Your task to perform on an android device: visit the assistant section in the google photos Image 0: 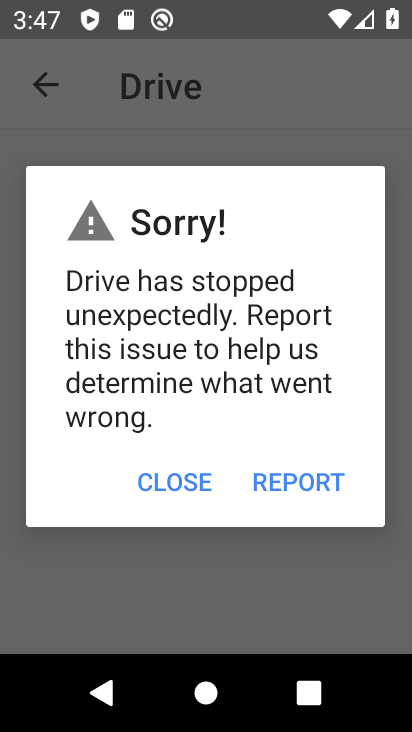
Step 0: press home button
Your task to perform on an android device: visit the assistant section in the google photos Image 1: 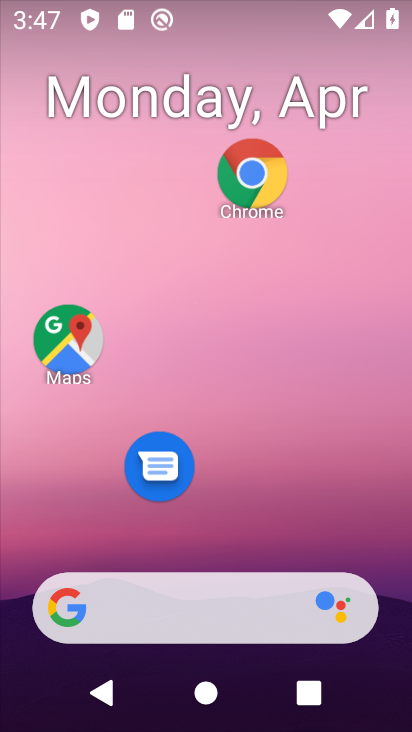
Step 1: drag from (301, 540) to (290, 142)
Your task to perform on an android device: visit the assistant section in the google photos Image 2: 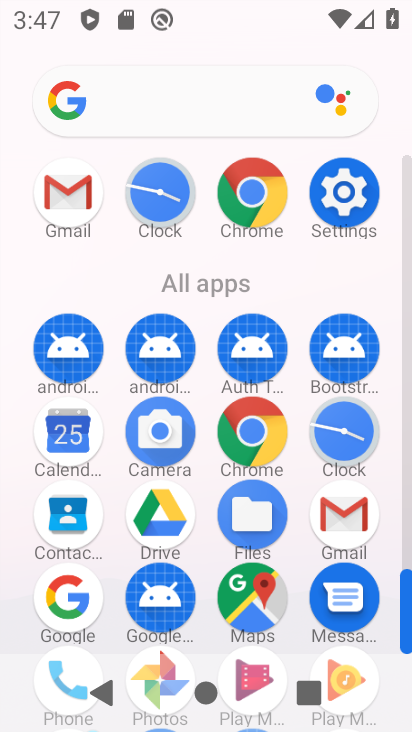
Step 2: drag from (391, 569) to (393, 366)
Your task to perform on an android device: visit the assistant section in the google photos Image 3: 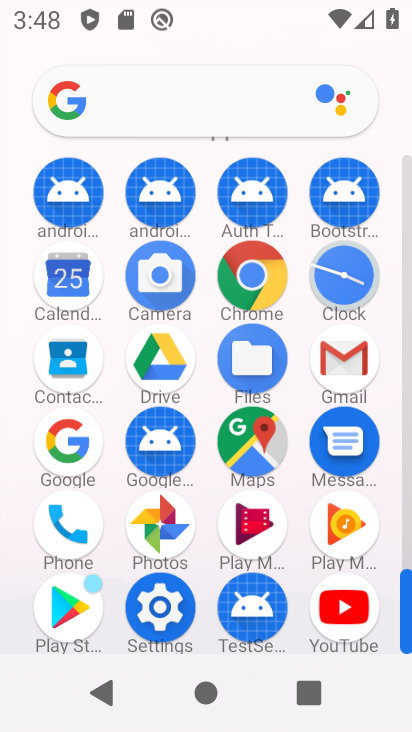
Step 3: click (175, 527)
Your task to perform on an android device: visit the assistant section in the google photos Image 4: 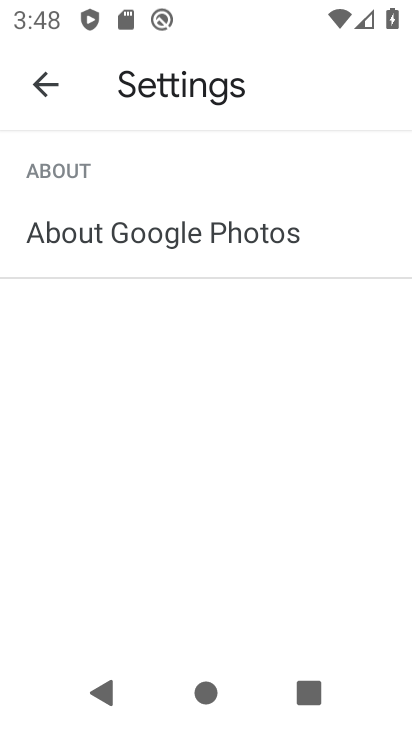
Step 4: press back button
Your task to perform on an android device: visit the assistant section in the google photos Image 5: 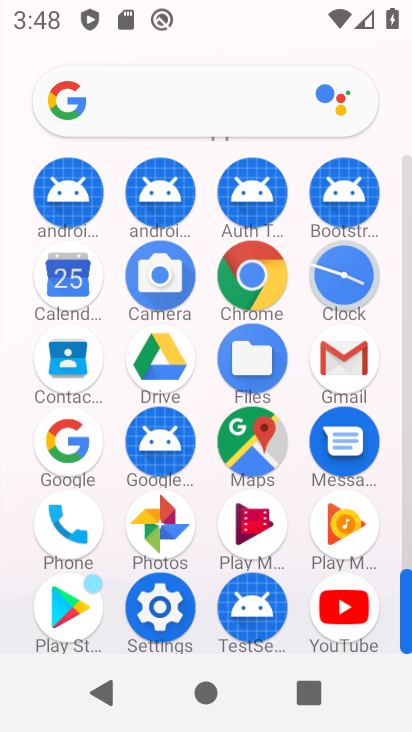
Step 5: click (168, 537)
Your task to perform on an android device: visit the assistant section in the google photos Image 6: 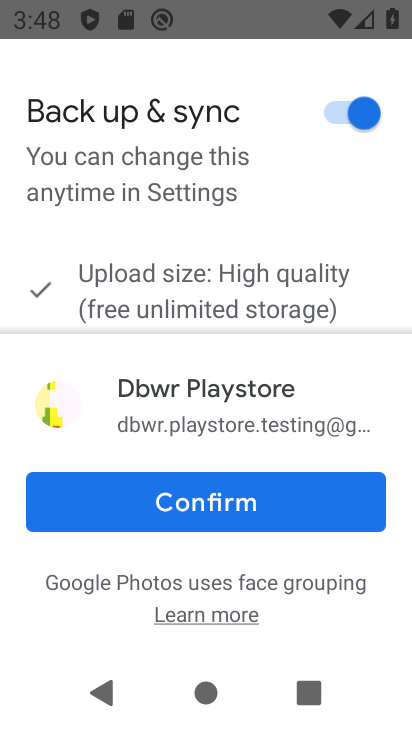
Step 6: click (175, 528)
Your task to perform on an android device: visit the assistant section in the google photos Image 7: 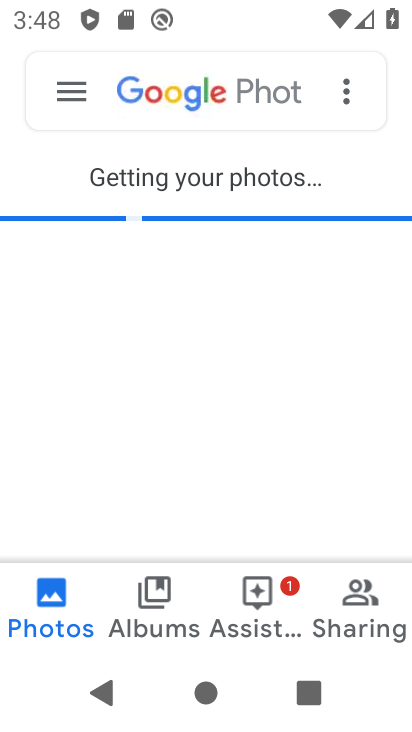
Step 7: click (252, 608)
Your task to perform on an android device: visit the assistant section in the google photos Image 8: 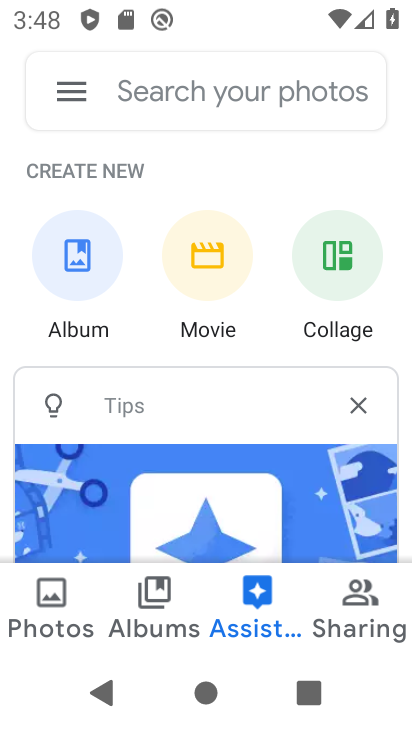
Step 8: task complete